Your task to perform on an android device: open chrome privacy settings Image 0: 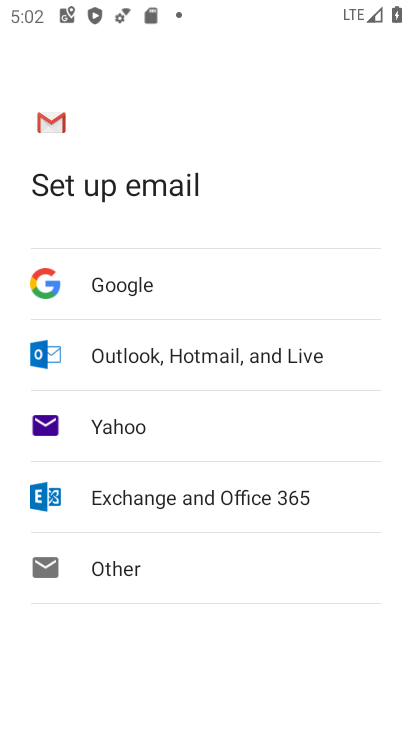
Step 0: press home button
Your task to perform on an android device: open chrome privacy settings Image 1: 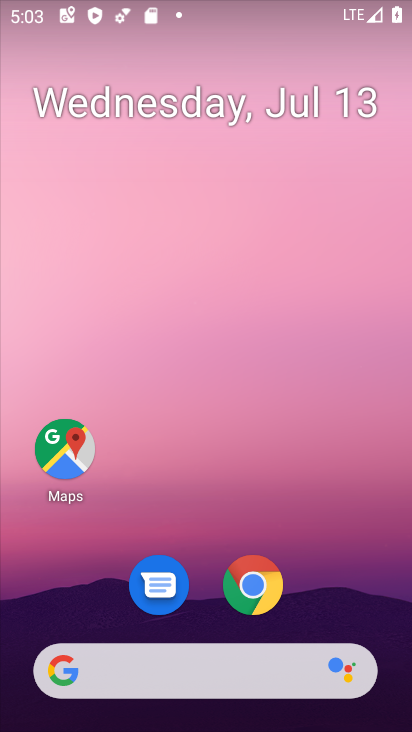
Step 1: click (273, 585)
Your task to perform on an android device: open chrome privacy settings Image 2: 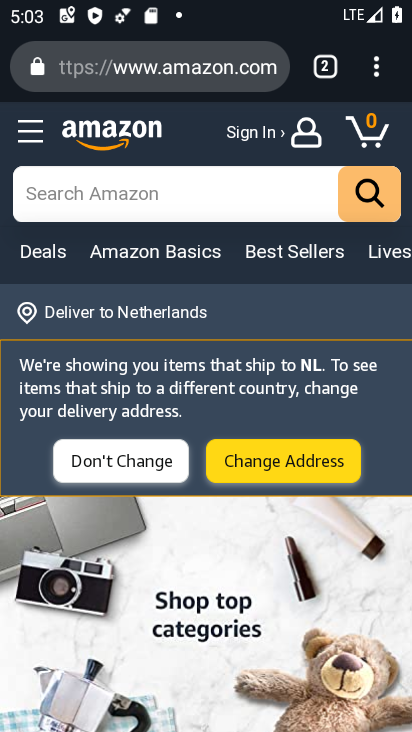
Step 2: click (372, 67)
Your task to perform on an android device: open chrome privacy settings Image 3: 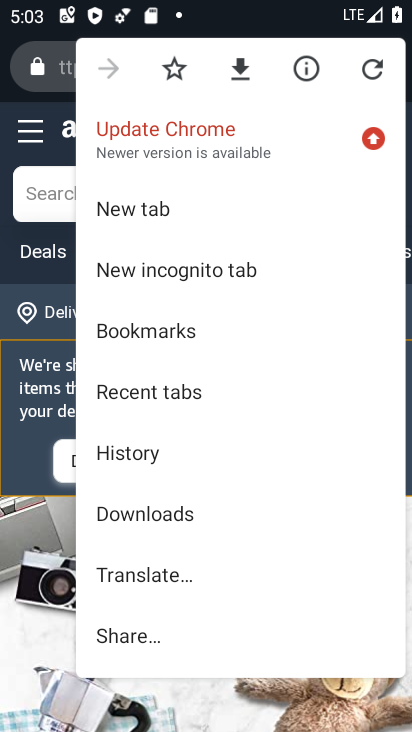
Step 3: drag from (235, 578) to (216, 193)
Your task to perform on an android device: open chrome privacy settings Image 4: 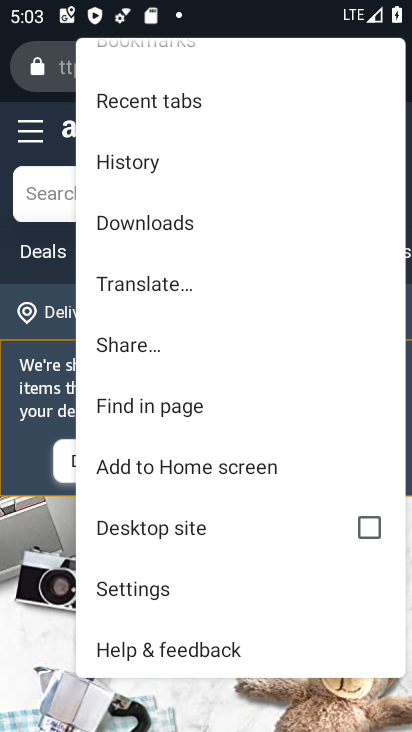
Step 4: click (168, 585)
Your task to perform on an android device: open chrome privacy settings Image 5: 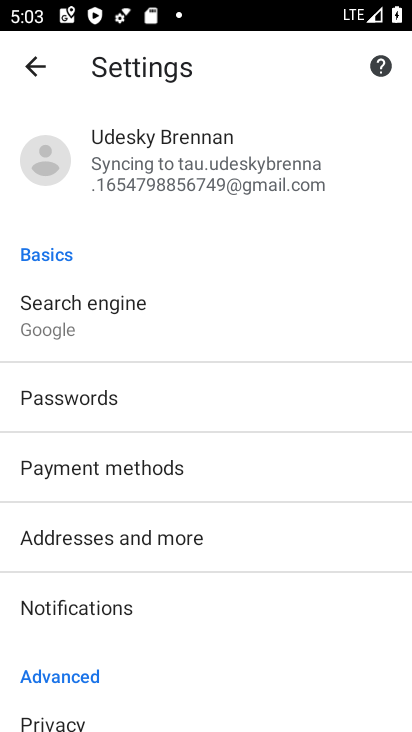
Step 5: drag from (230, 620) to (300, 269)
Your task to perform on an android device: open chrome privacy settings Image 6: 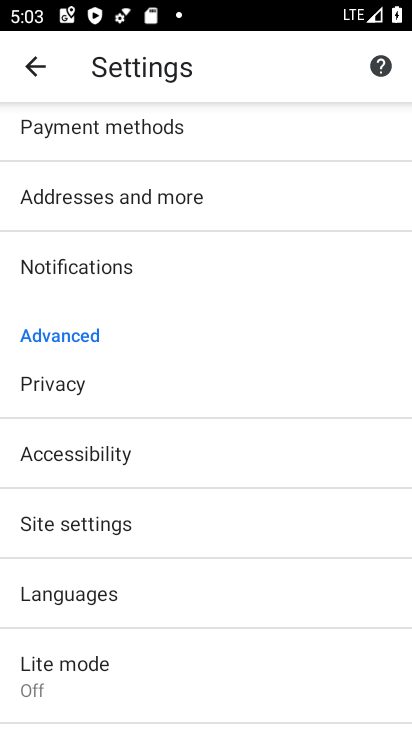
Step 6: click (70, 387)
Your task to perform on an android device: open chrome privacy settings Image 7: 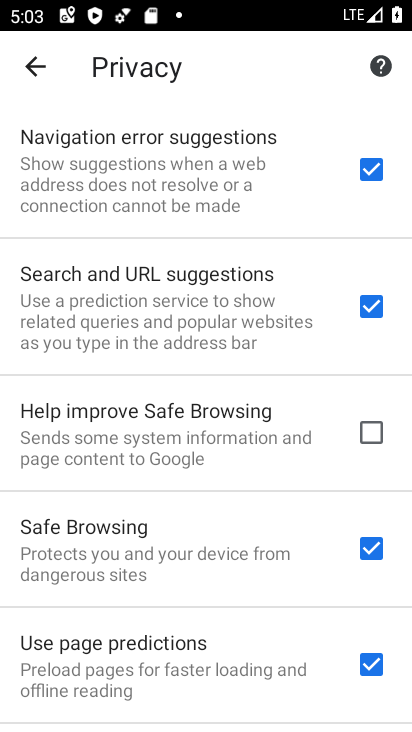
Step 7: task complete